Your task to perform on an android device: Open Youtube and go to the subscriptions tab Image 0: 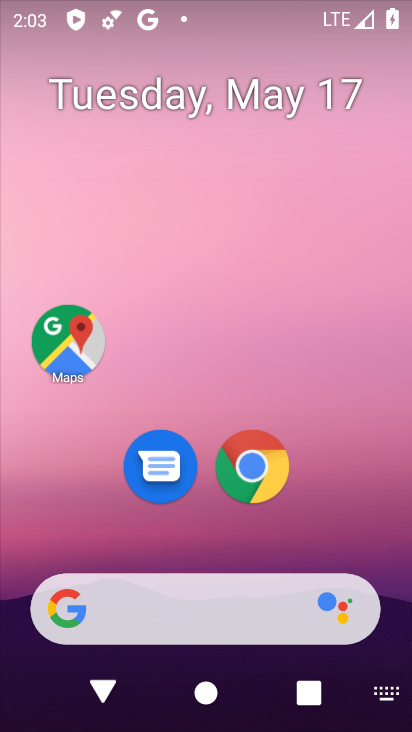
Step 0: drag from (340, 496) to (386, 68)
Your task to perform on an android device: Open Youtube and go to the subscriptions tab Image 1: 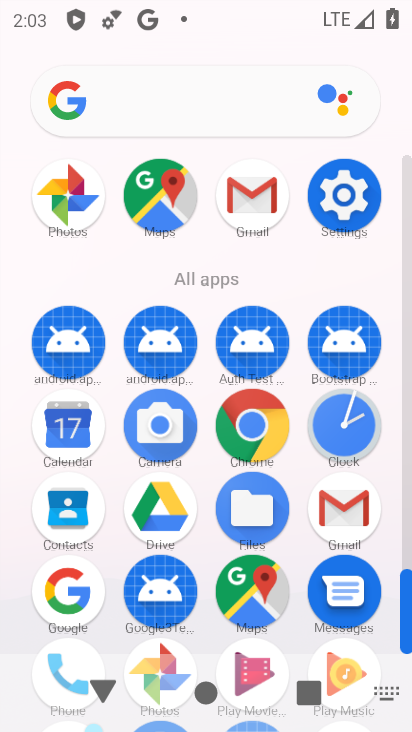
Step 1: drag from (296, 564) to (405, 169)
Your task to perform on an android device: Open Youtube and go to the subscriptions tab Image 2: 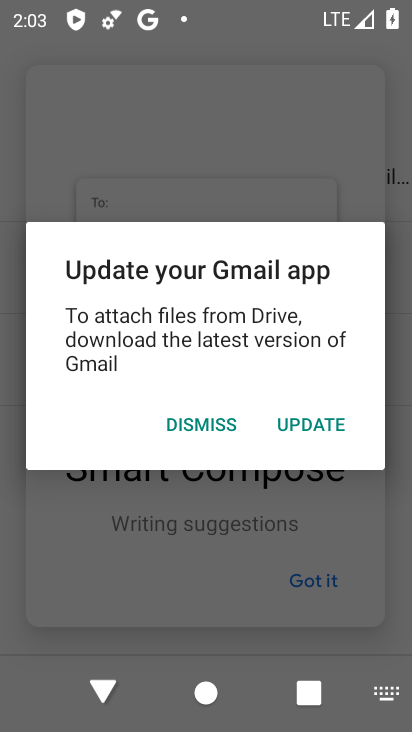
Step 2: press home button
Your task to perform on an android device: Open Youtube and go to the subscriptions tab Image 3: 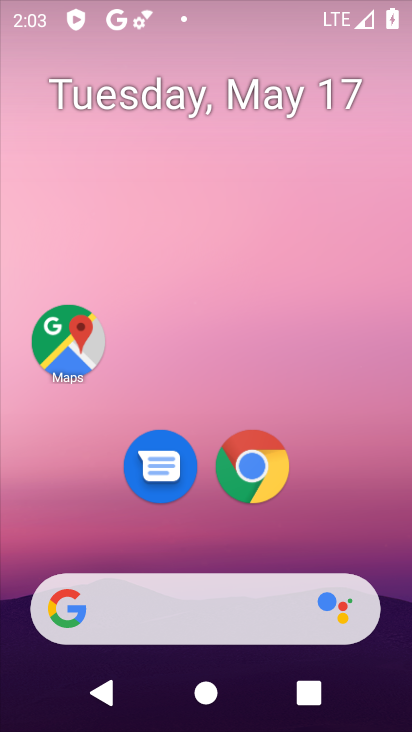
Step 3: drag from (318, 554) to (358, 138)
Your task to perform on an android device: Open Youtube and go to the subscriptions tab Image 4: 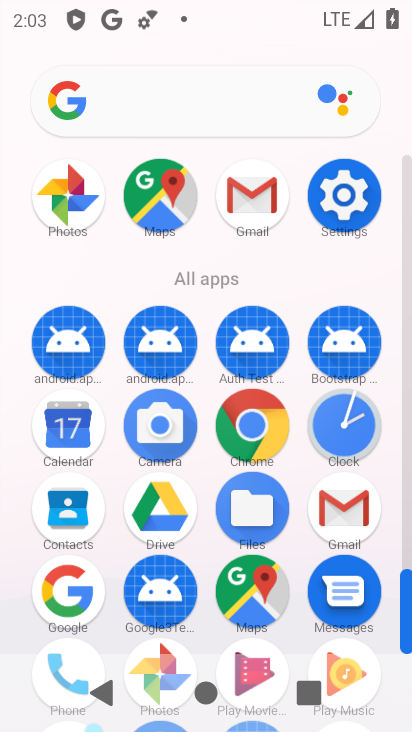
Step 4: drag from (296, 618) to (388, 223)
Your task to perform on an android device: Open Youtube and go to the subscriptions tab Image 5: 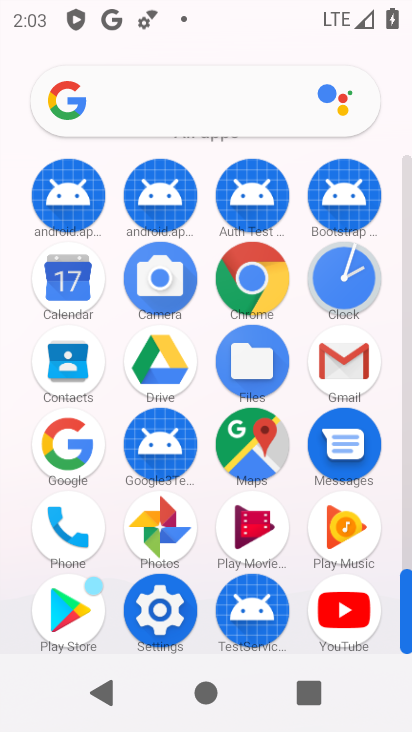
Step 5: click (337, 622)
Your task to perform on an android device: Open Youtube and go to the subscriptions tab Image 6: 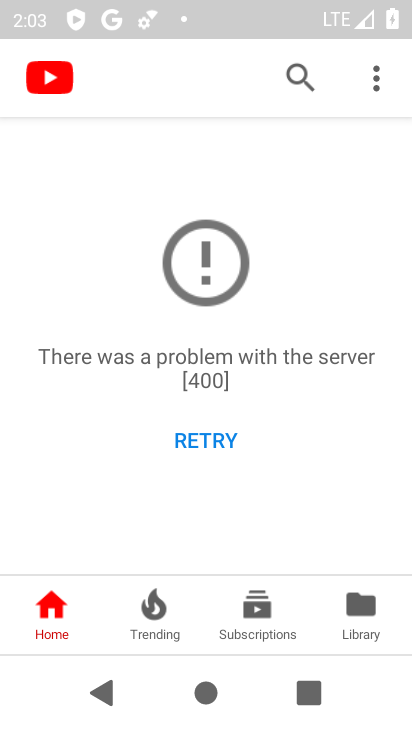
Step 6: click (283, 601)
Your task to perform on an android device: Open Youtube and go to the subscriptions tab Image 7: 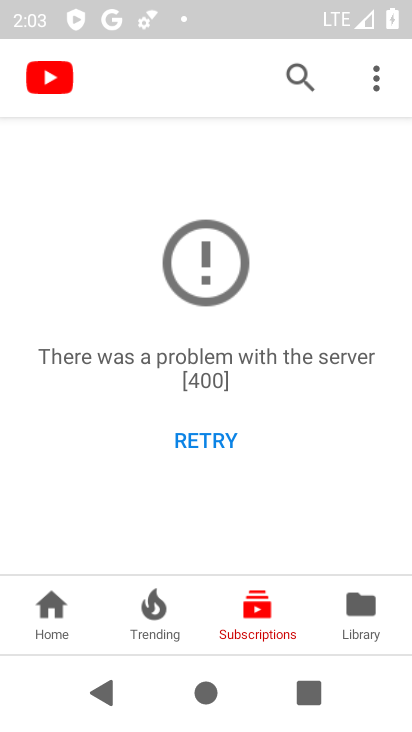
Step 7: task complete